Your task to perform on an android device: toggle notifications settings in the gmail app Image 0: 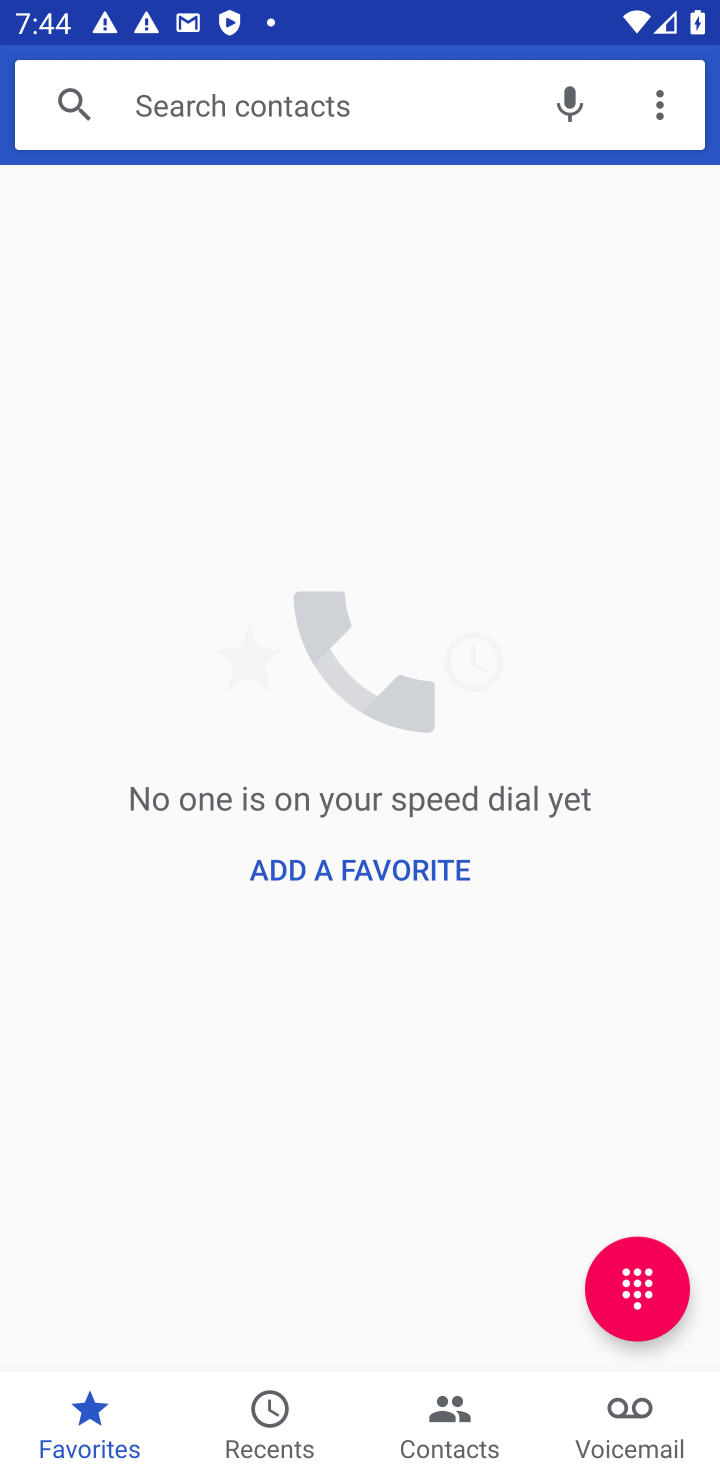
Step 0: press home button
Your task to perform on an android device: toggle notifications settings in the gmail app Image 1: 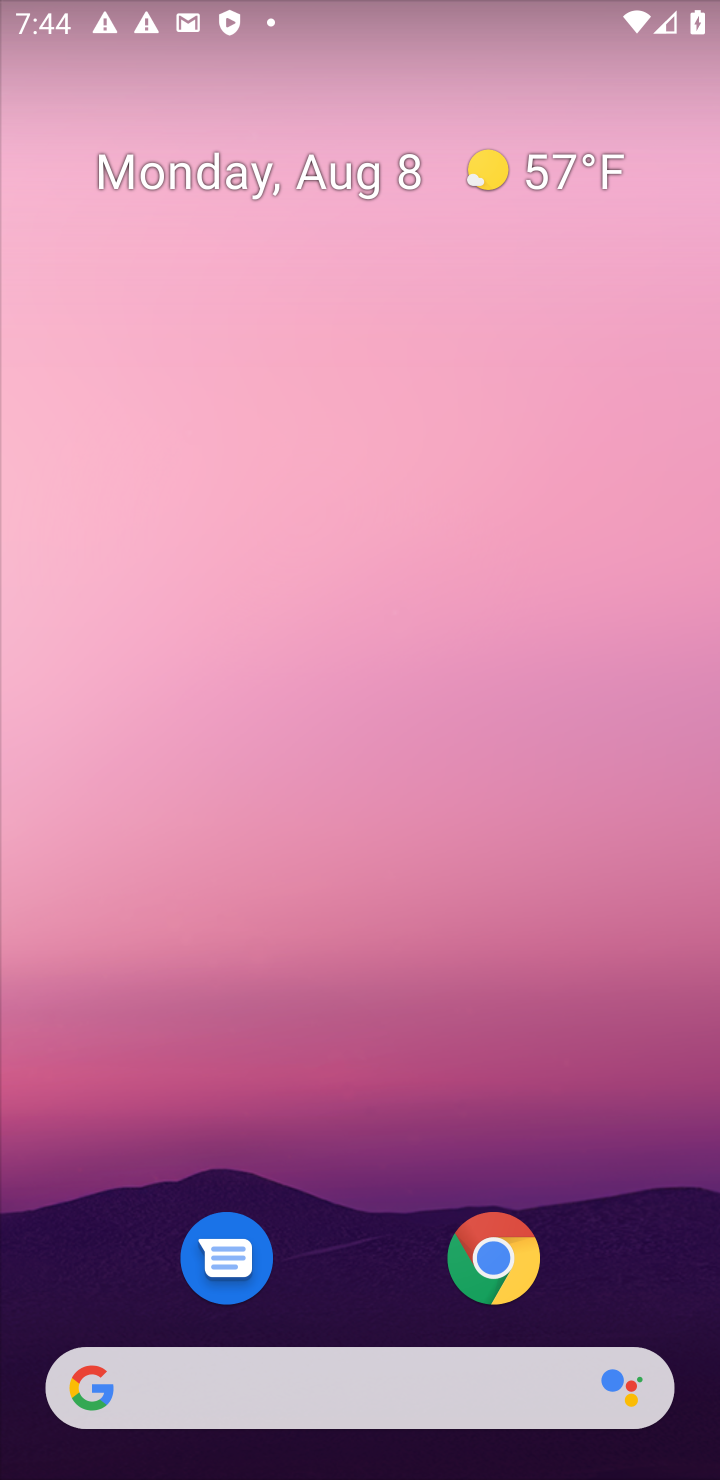
Step 1: drag from (412, 1198) to (400, 607)
Your task to perform on an android device: toggle notifications settings in the gmail app Image 2: 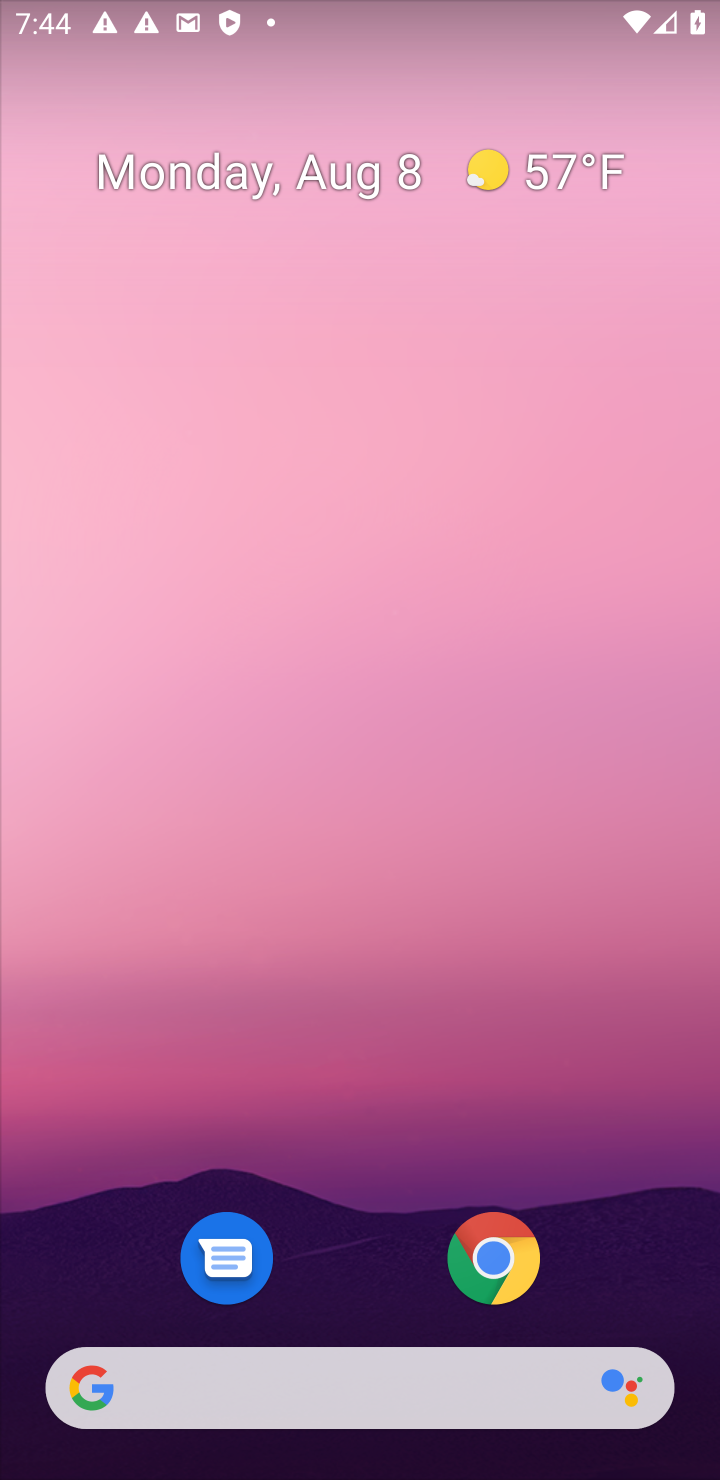
Step 2: drag from (345, 1200) to (375, 232)
Your task to perform on an android device: toggle notifications settings in the gmail app Image 3: 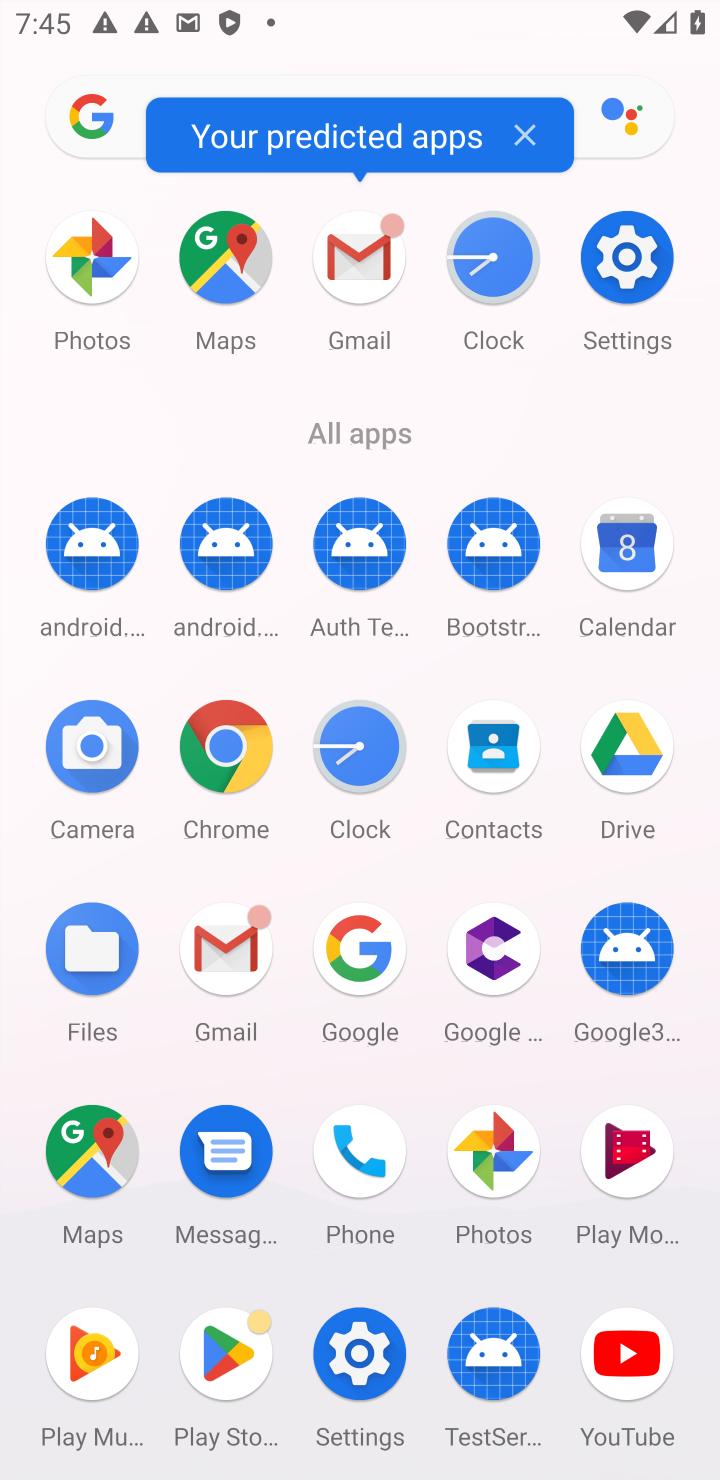
Step 3: click (208, 772)
Your task to perform on an android device: toggle notifications settings in the gmail app Image 4: 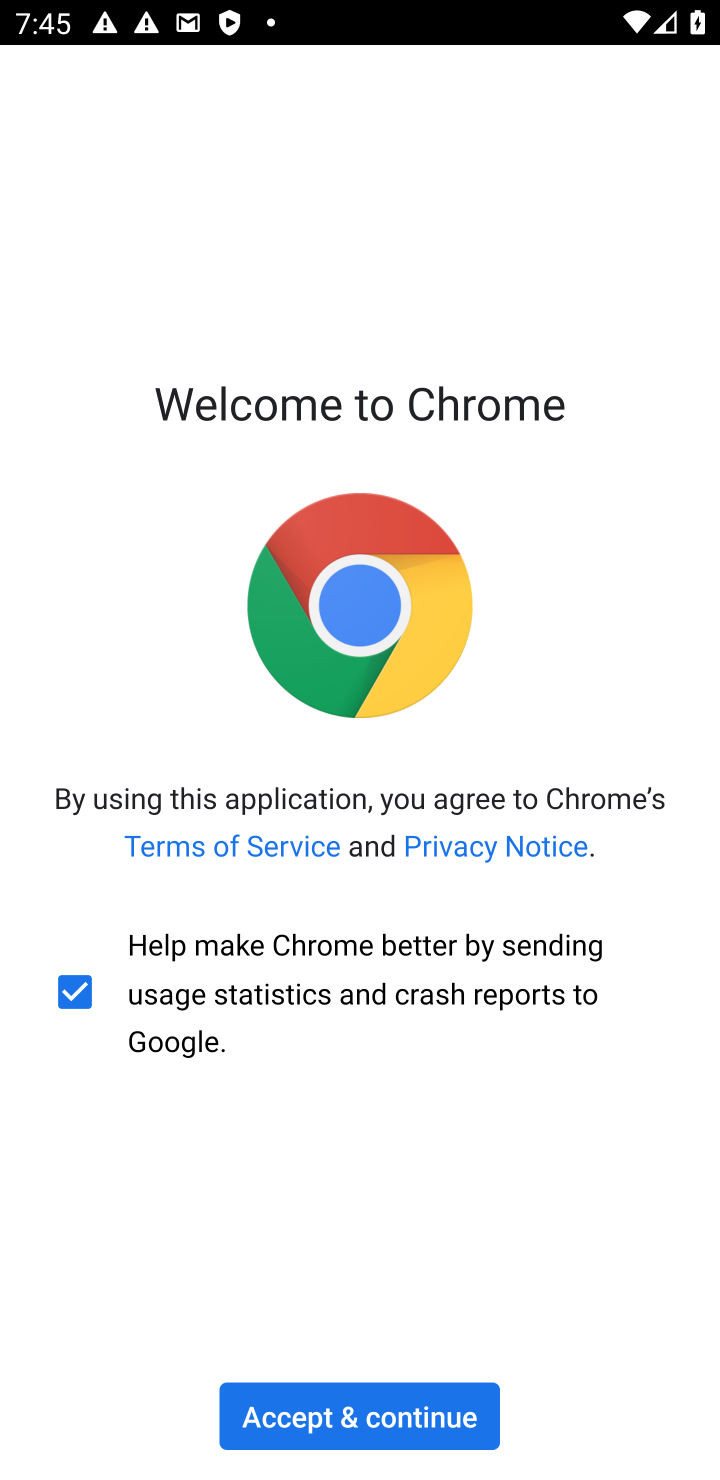
Step 4: click (327, 1404)
Your task to perform on an android device: toggle notifications settings in the gmail app Image 5: 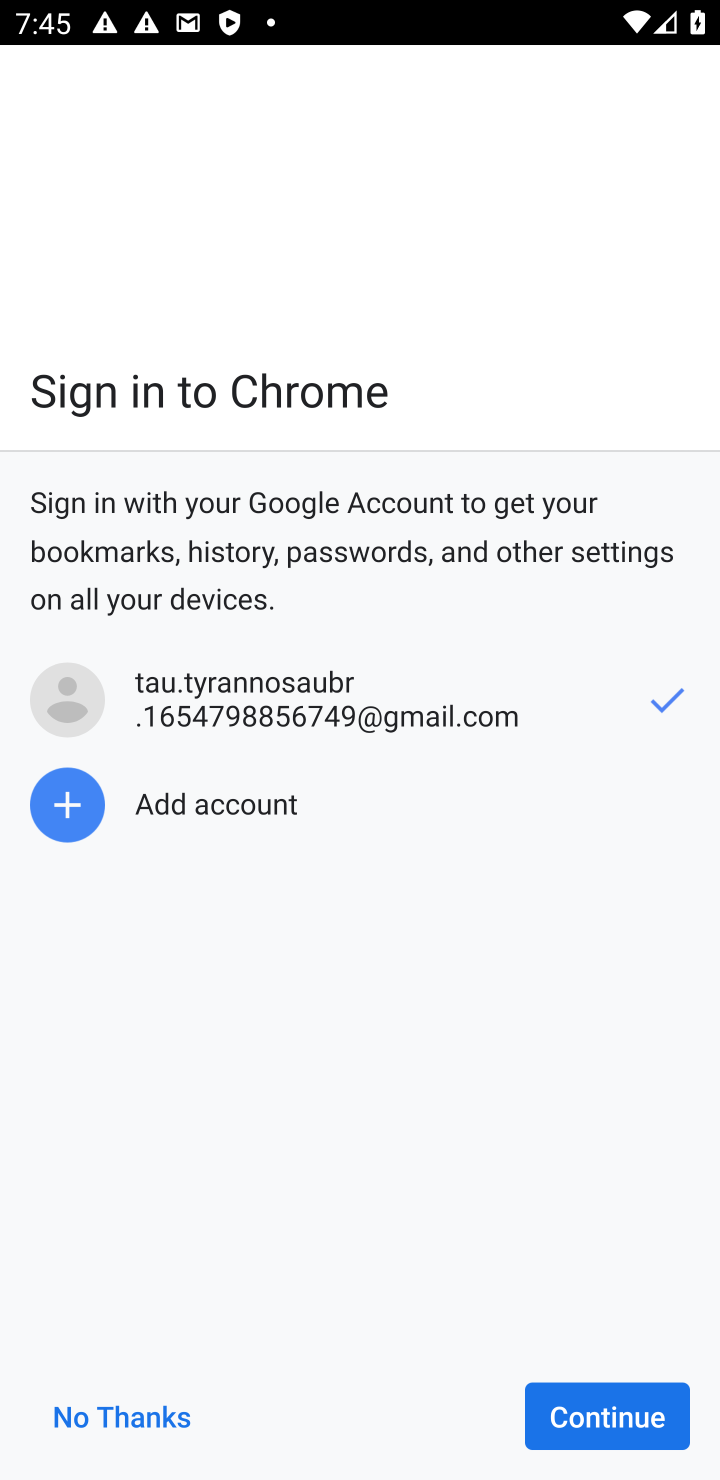
Step 5: click (119, 1440)
Your task to perform on an android device: toggle notifications settings in the gmail app Image 6: 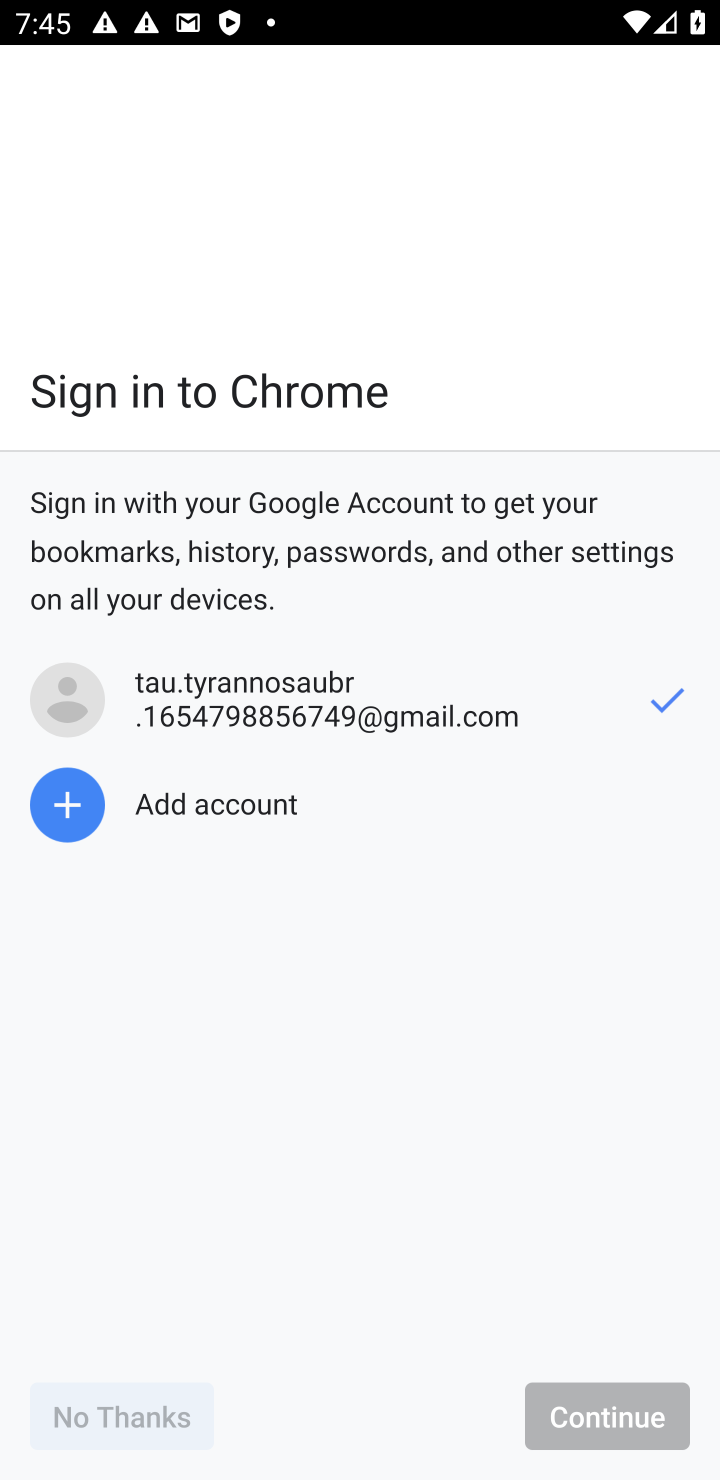
Step 6: click (110, 1415)
Your task to perform on an android device: toggle notifications settings in the gmail app Image 7: 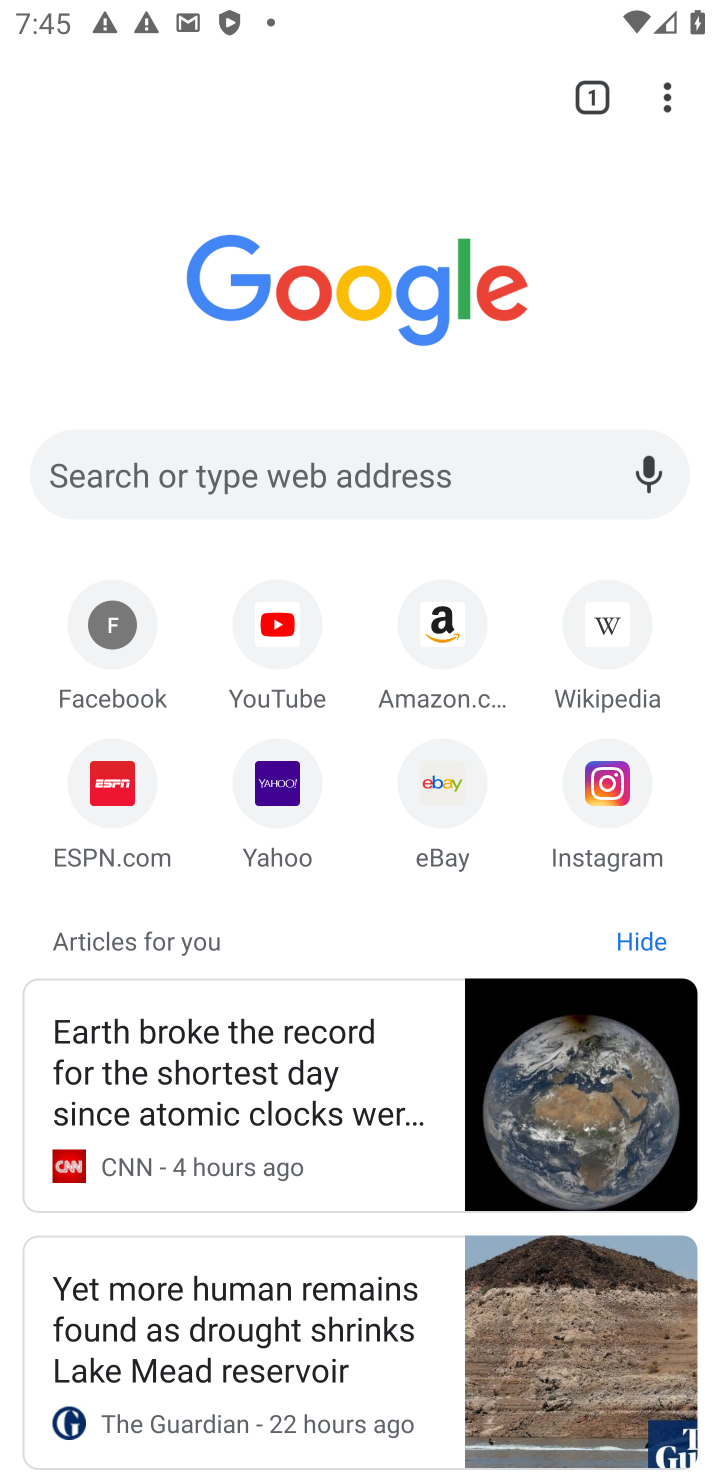
Step 7: task complete